Your task to perform on an android device: toggle show notifications on the lock screen Image 0: 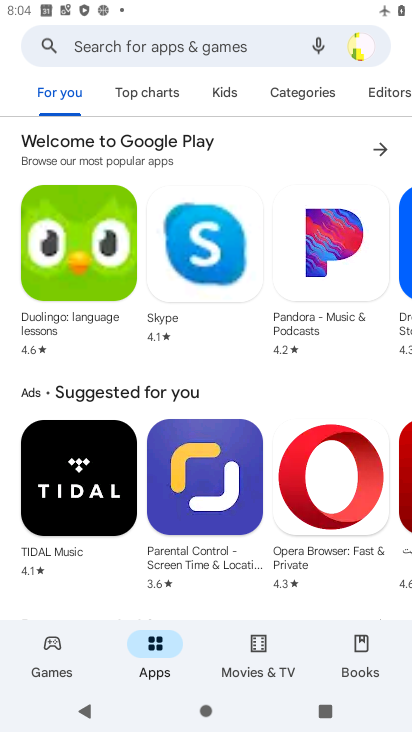
Step 0: press home button
Your task to perform on an android device: toggle show notifications on the lock screen Image 1: 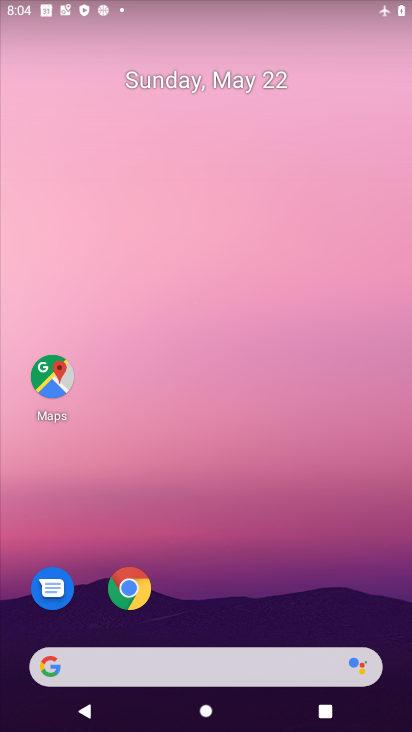
Step 1: drag from (264, 532) to (159, 0)
Your task to perform on an android device: toggle show notifications on the lock screen Image 2: 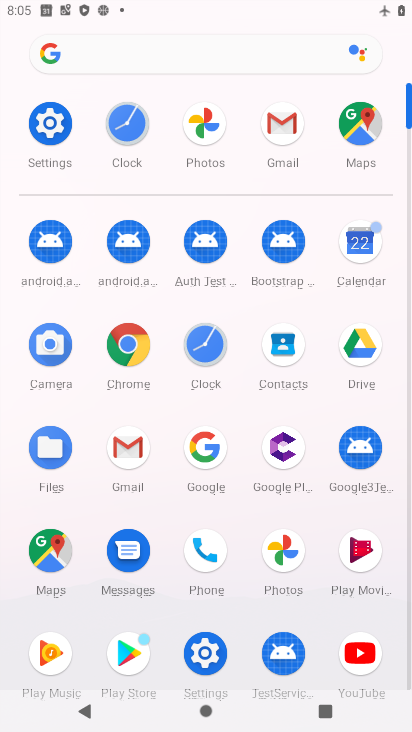
Step 2: click (48, 120)
Your task to perform on an android device: toggle show notifications on the lock screen Image 3: 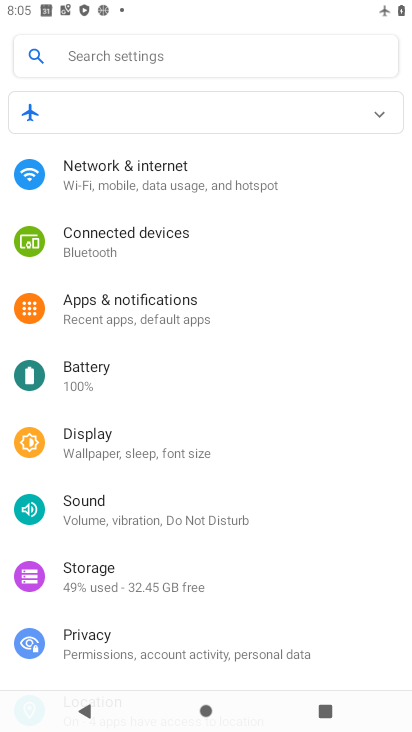
Step 3: click (133, 300)
Your task to perform on an android device: toggle show notifications on the lock screen Image 4: 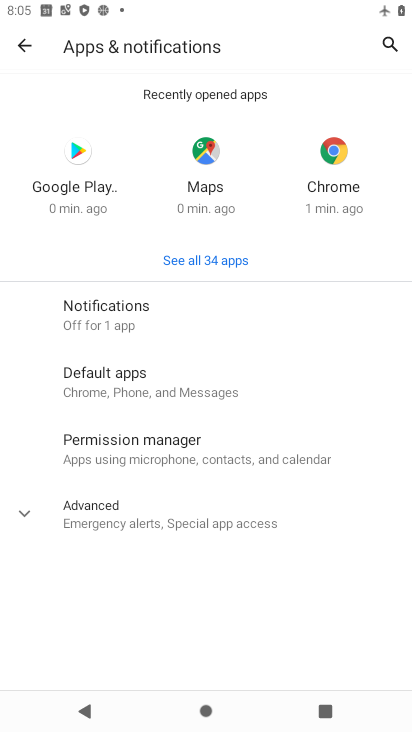
Step 4: click (108, 304)
Your task to perform on an android device: toggle show notifications on the lock screen Image 5: 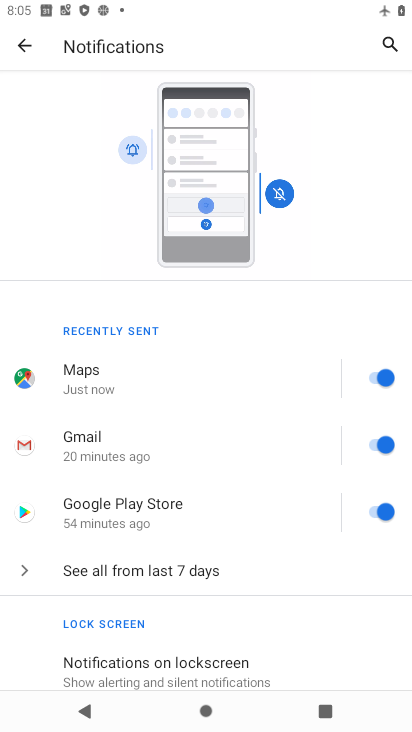
Step 5: click (182, 667)
Your task to perform on an android device: toggle show notifications on the lock screen Image 6: 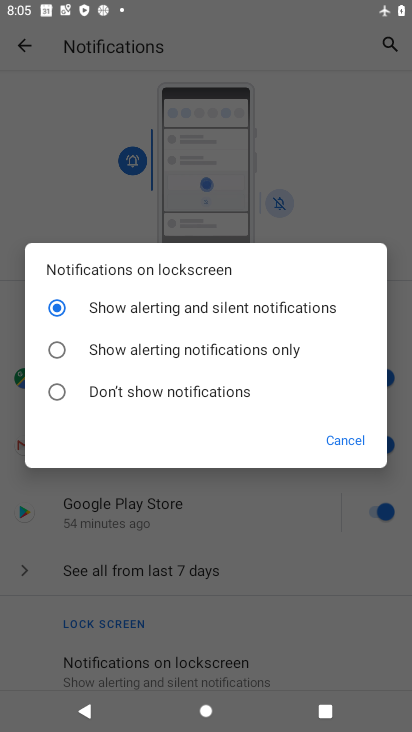
Step 6: click (54, 392)
Your task to perform on an android device: toggle show notifications on the lock screen Image 7: 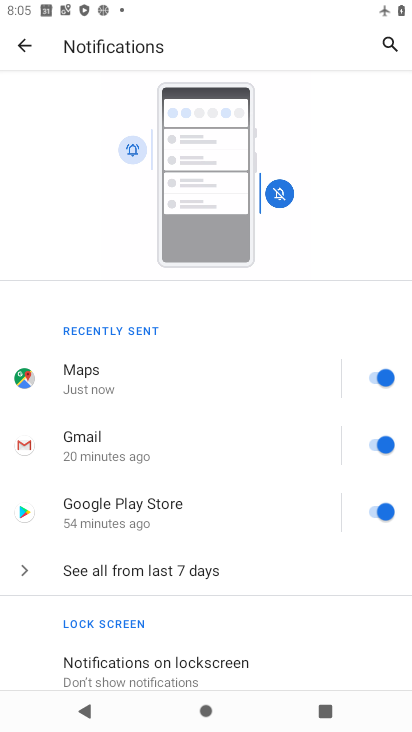
Step 7: task complete